Your task to perform on an android device: turn off data saver in the chrome app Image 0: 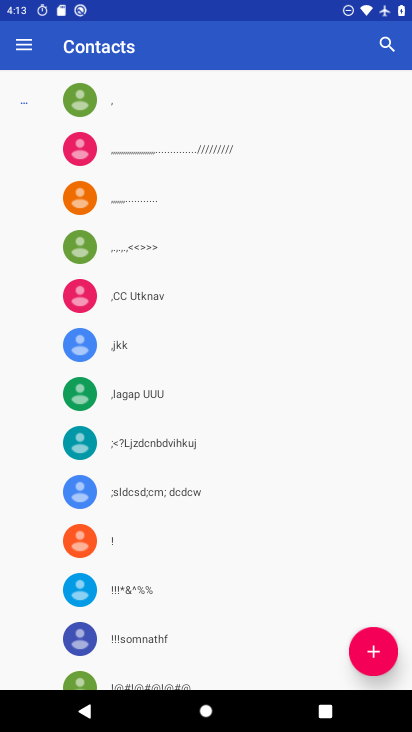
Step 0: press home button
Your task to perform on an android device: turn off data saver in the chrome app Image 1: 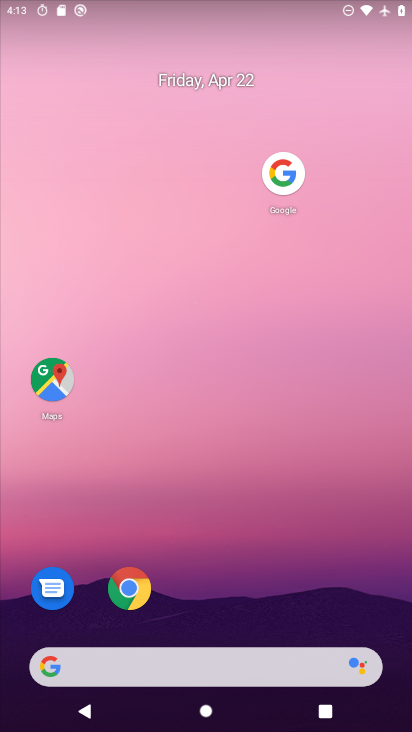
Step 1: drag from (212, 617) to (405, 551)
Your task to perform on an android device: turn off data saver in the chrome app Image 2: 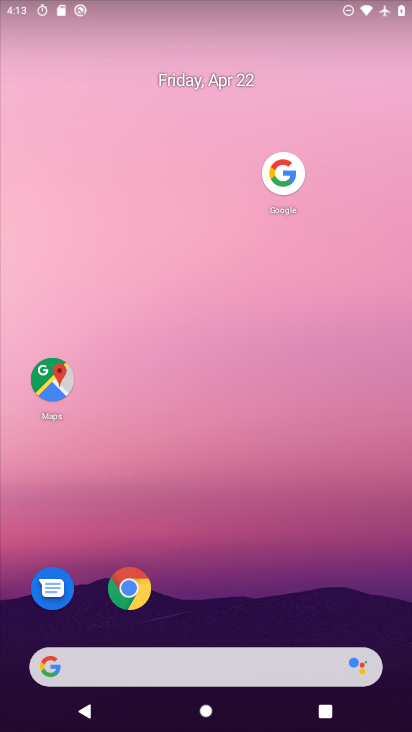
Step 2: drag from (228, 635) to (184, 38)
Your task to perform on an android device: turn off data saver in the chrome app Image 3: 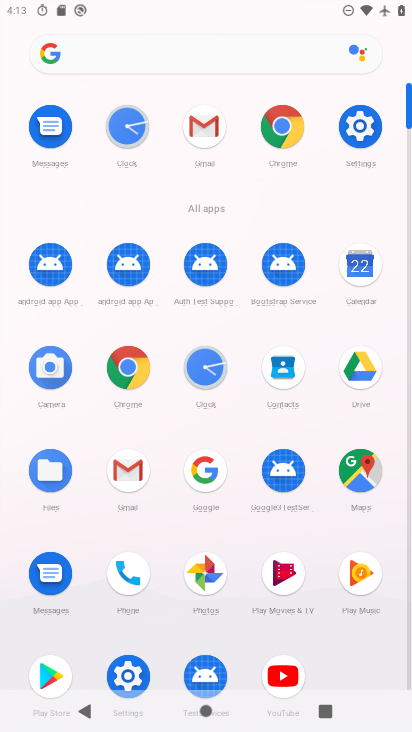
Step 3: click (124, 377)
Your task to perform on an android device: turn off data saver in the chrome app Image 4: 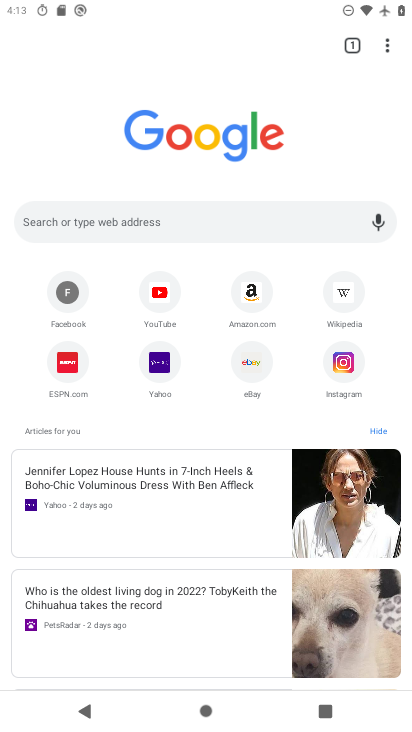
Step 4: drag from (385, 47) to (280, 426)
Your task to perform on an android device: turn off data saver in the chrome app Image 5: 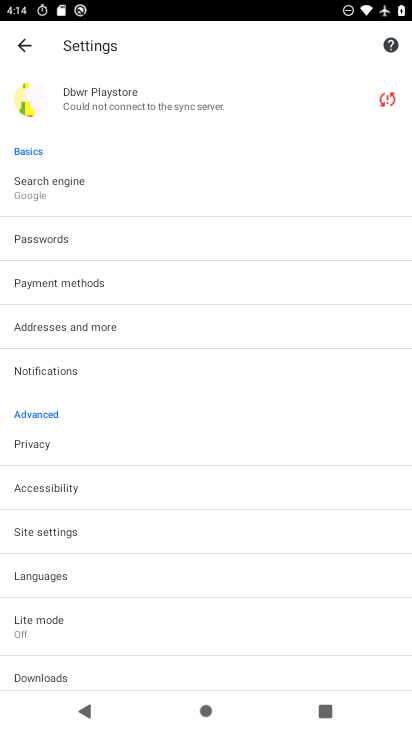
Step 5: click (81, 632)
Your task to perform on an android device: turn off data saver in the chrome app Image 6: 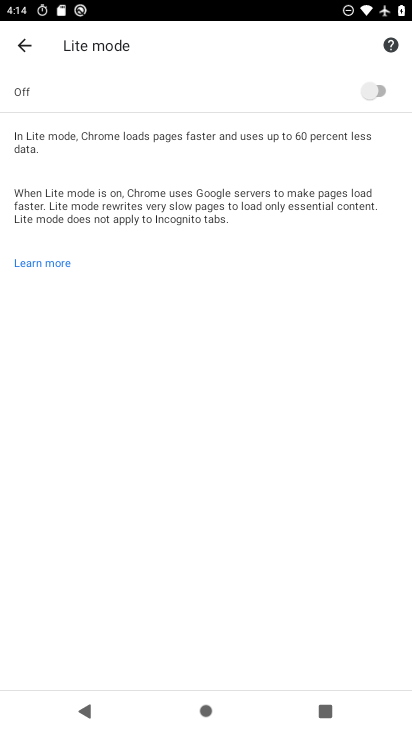
Step 6: task complete